Your task to perform on an android device: Open settings on Google Maps Image 0: 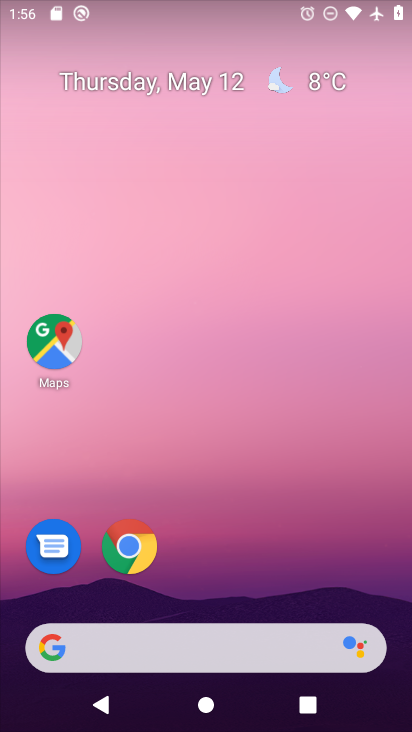
Step 0: click (60, 352)
Your task to perform on an android device: Open settings on Google Maps Image 1: 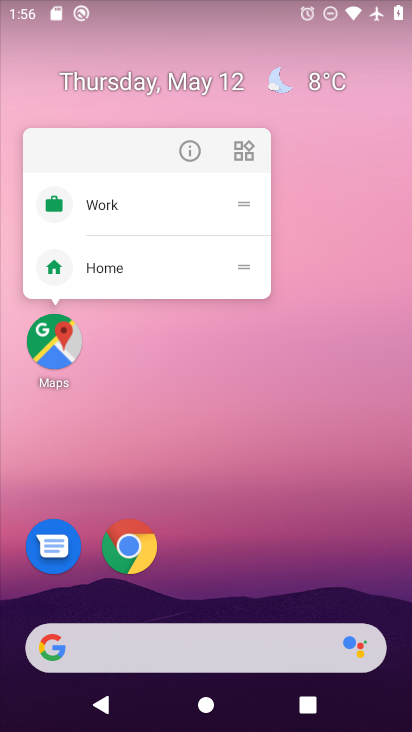
Step 1: click (55, 352)
Your task to perform on an android device: Open settings on Google Maps Image 2: 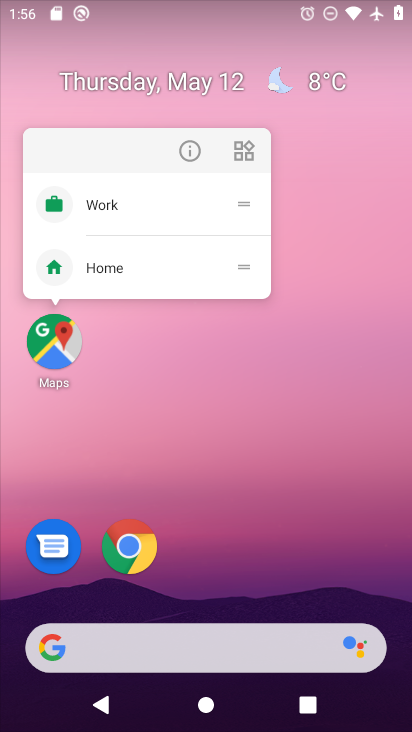
Step 2: click (52, 346)
Your task to perform on an android device: Open settings on Google Maps Image 3: 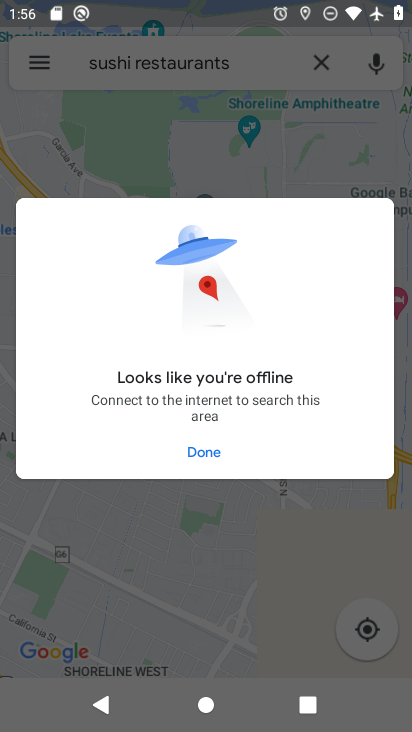
Step 3: click (203, 454)
Your task to perform on an android device: Open settings on Google Maps Image 4: 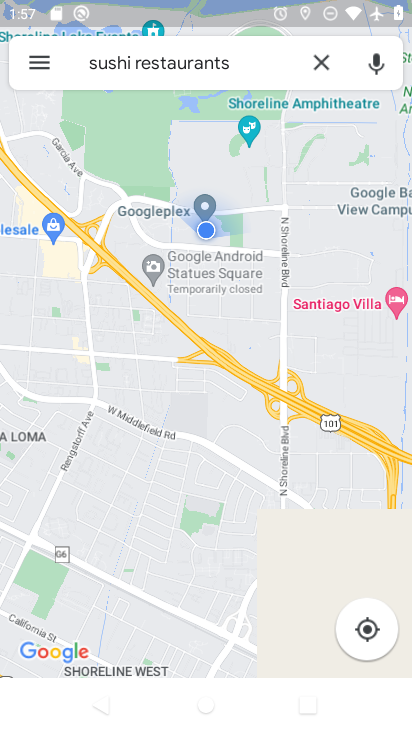
Step 4: click (35, 65)
Your task to perform on an android device: Open settings on Google Maps Image 5: 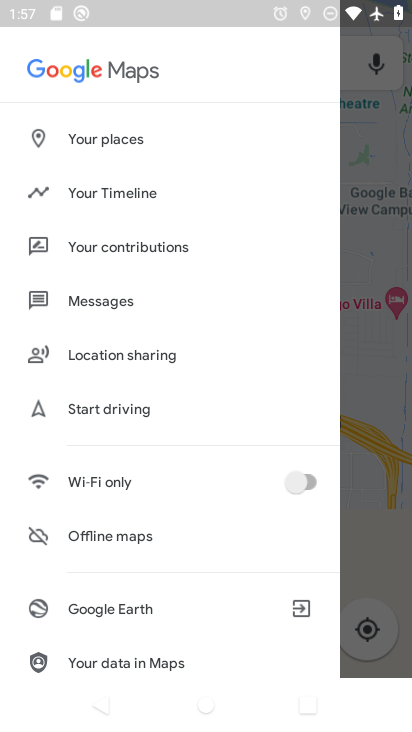
Step 5: drag from (141, 645) to (241, 230)
Your task to perform on an android device: Open settings on Google Maps Image 6: 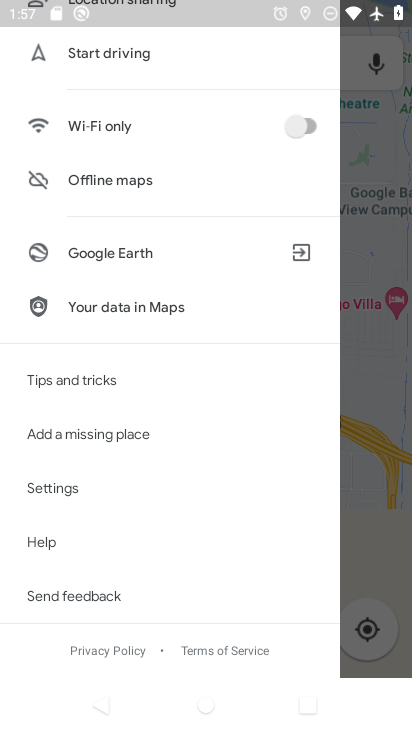
Step 6: click (72, 490)
Your task to perform on an android device: Open settings on Google Maps Image 7: 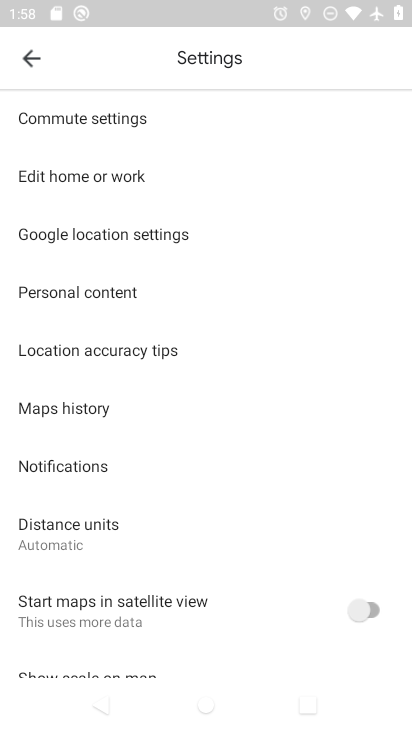
Step 7: task complete